Your task to perform on an android device: Turn off the flashlight Image 0: 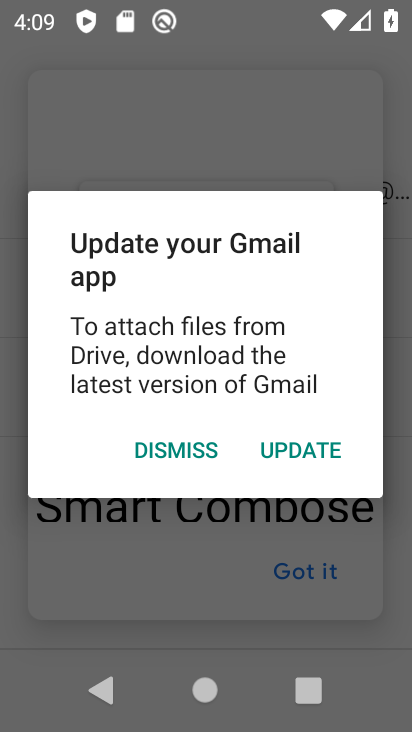
Step 0: press home button
Your task to perform on an android device: Turn off the flashlight Image 1: 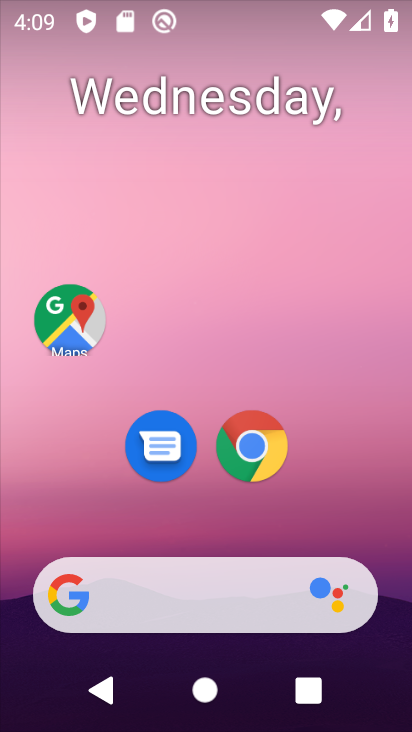
Step 1: drag from (225, 726) to (219, 58)
Your task to perform on an android device: Turn off the flashlight Image 2: 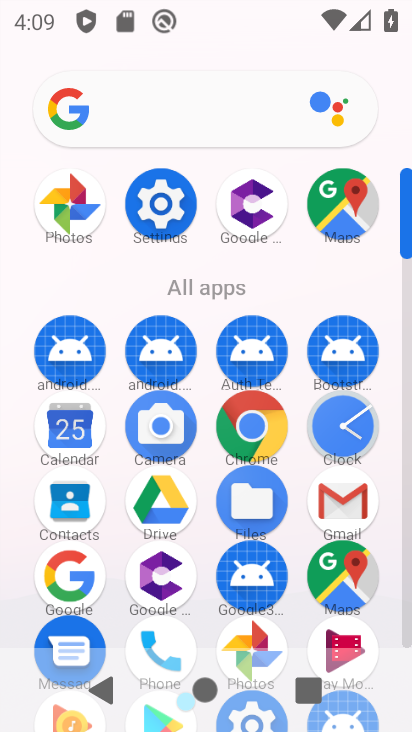
Step 2: click (157, 203)
Your task to perform on an android device: Turn off the flashlight Image 3: 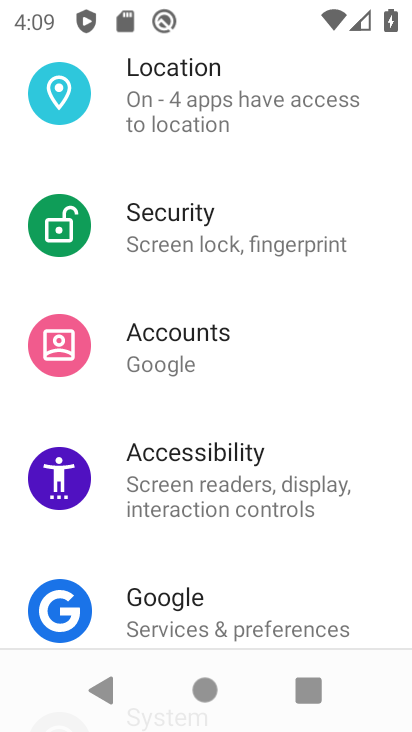
Step 3: task complete